Your task to perform on an android device: Do I have any events this weekend? Image 0: 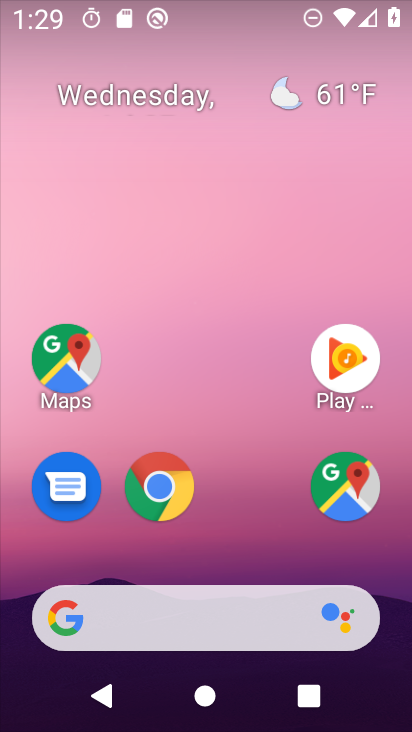
Step 0: press home button
Your task to perform on an android device: Do I have any events this weekend? Image 1: 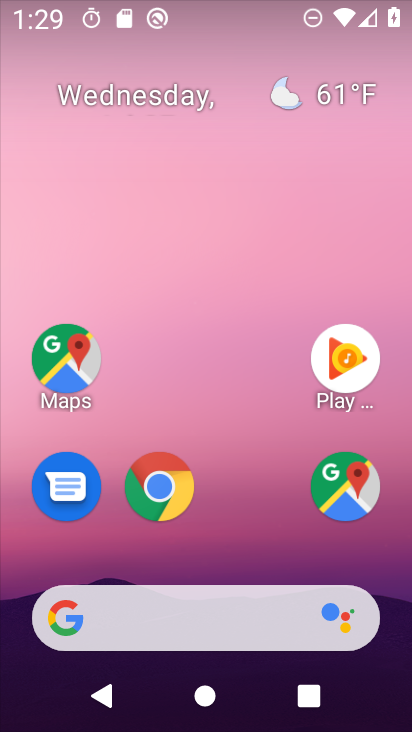
Step 1: drag from (286, 555) to (274, 152)
Your task to perform on an android device: Do I have any events this weekend? Image 2: 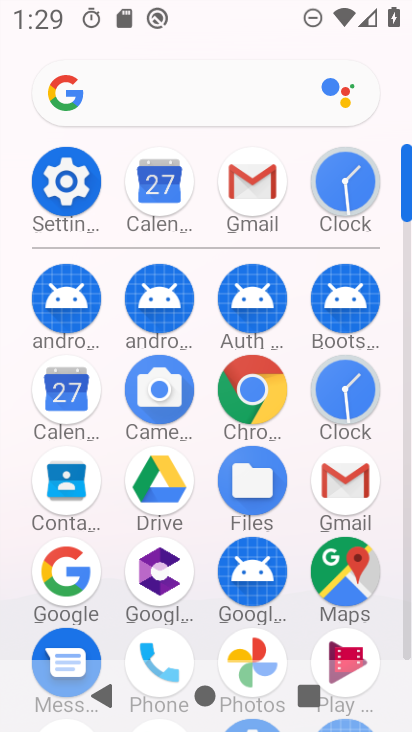
Step 2: click (62, 399)
Your task to perform on an android device: Do I have any events this weekend? Image 3: 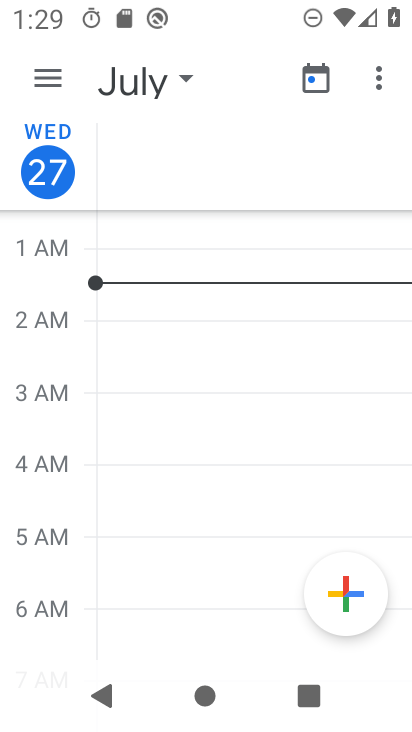
Step 3: click (42, 80)
Your task to perform on an android device: Do I have any events this weekend? Image 4: 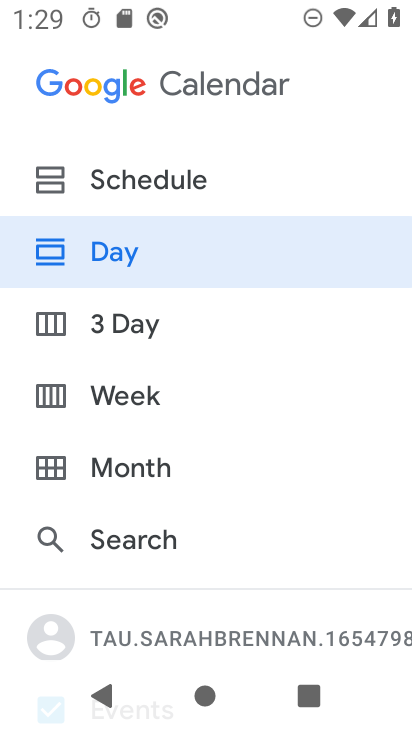
Step 4: click (150, 176)
Your task to perform on an android device: Do I have any events this weekend? Image 5: 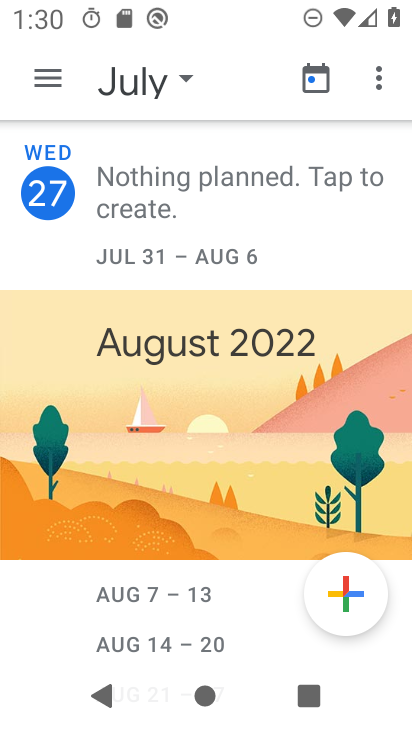
Step 5: task complete